Your task to perform on an android device: Do I have any events this weekend? Image 0: 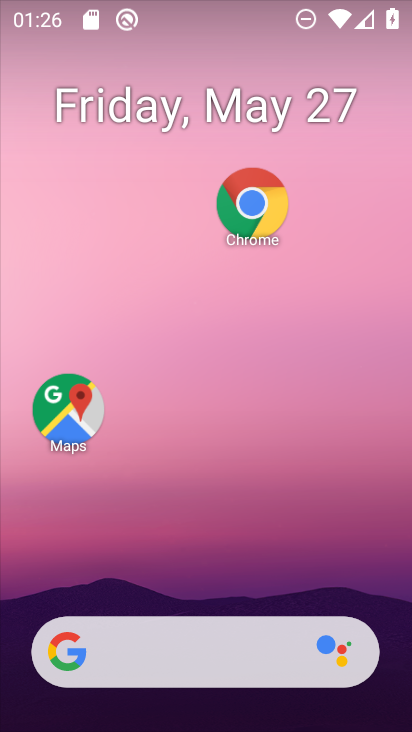
Step 0: drag from (184, 572) to (285, 90)
Your task to perform on an android device: Do I have any events this weekend? Image 1: 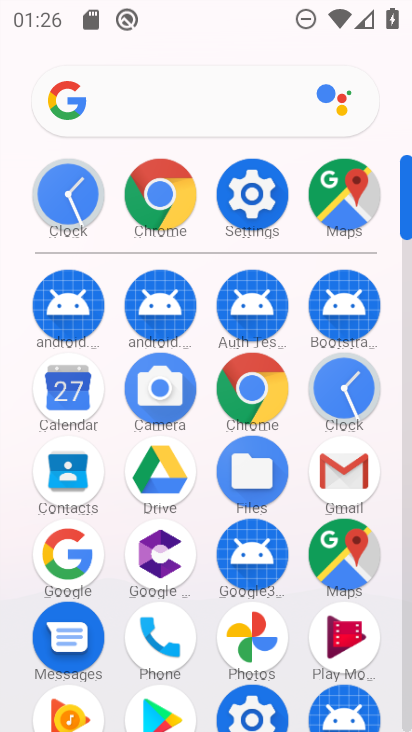
Step 1: click (79, 389)
Your task to perform on an android device: Do I have any events this weekend? Image 2: 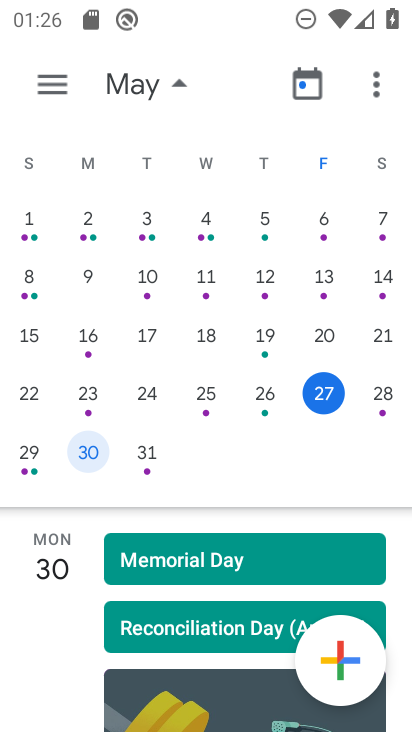
Step 2: drag from (182, 491) to (270, 292)
Your task to perform on an android device: Do I have any events this weekend? Image 3: 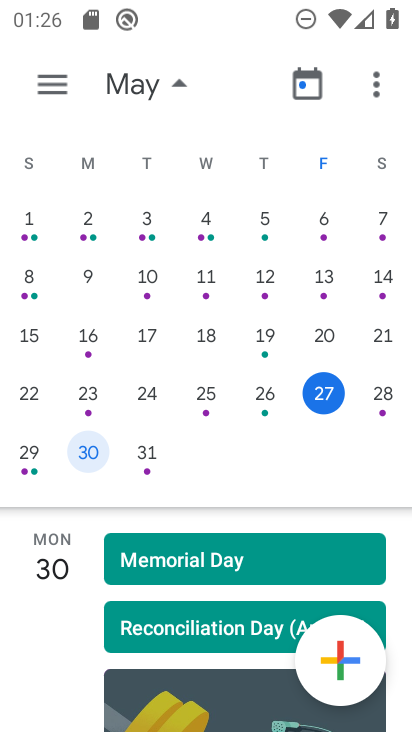
Step 3: drag from (250, 514) to (294, 332)
Your task to perform on an android device: Do I have any events this weekend? Image 4: 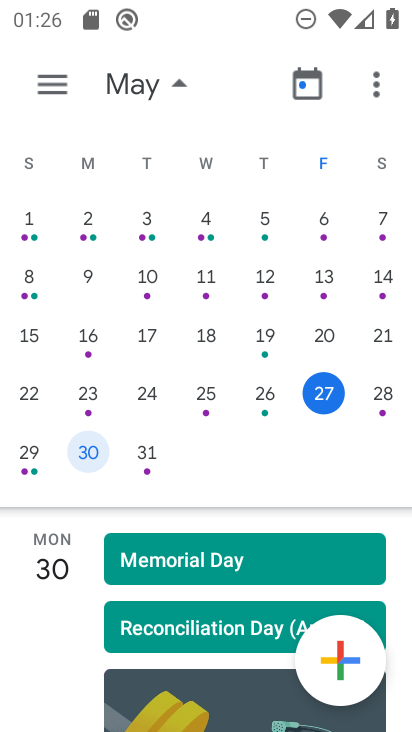
Step 4: click (369, 396)
Your task to perform on an android device: Do I have any events this weekend? Image 5: 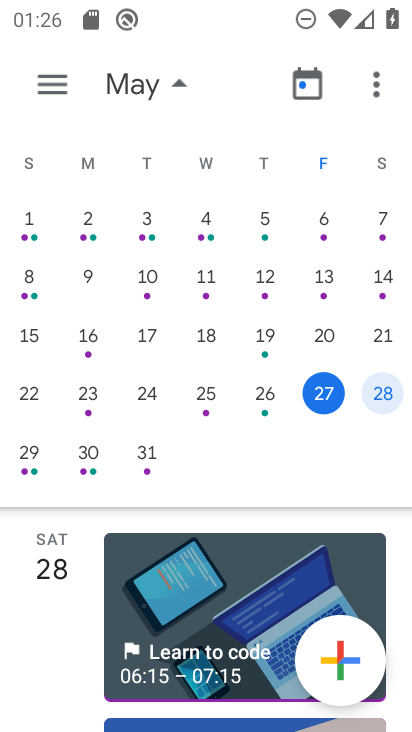
Step 5: task complete